Your task to perform on an android device: check the backup settings in the google photos Image 0: 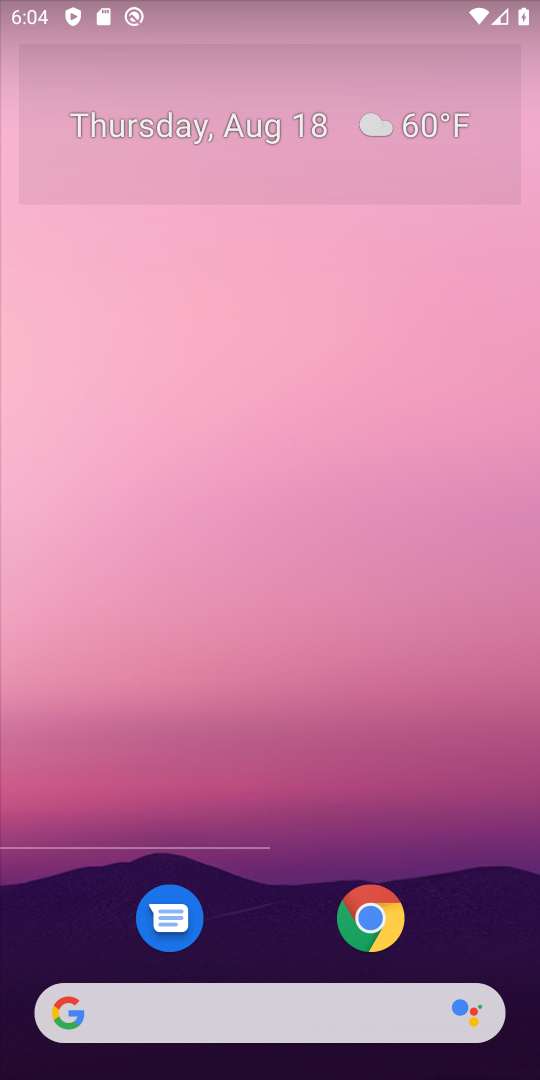
Step 0: press home button
Your task to perform on an android device: check the backup settings in the google photos Image 1: 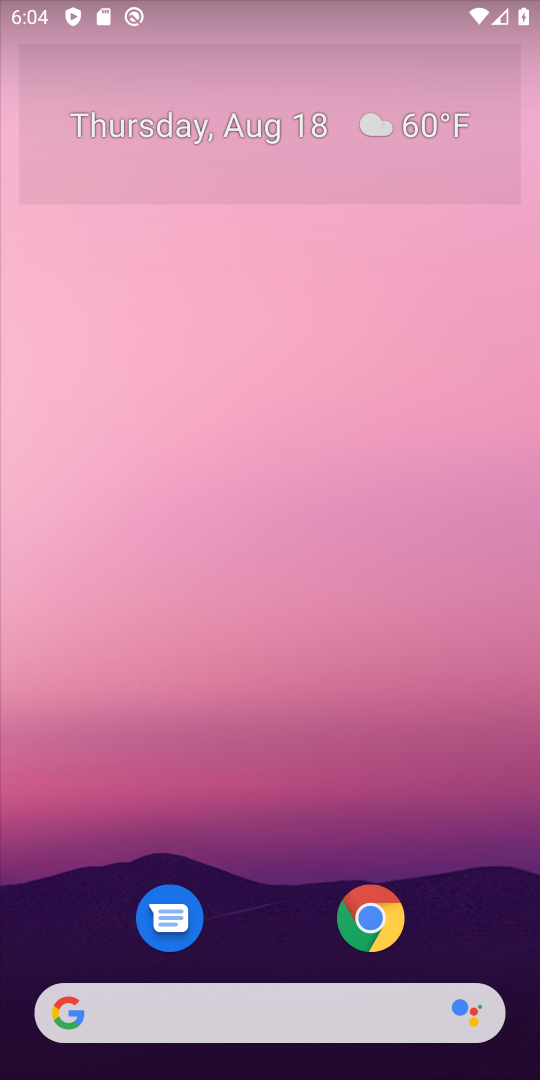
Step 1: drag from (255, 934) to (327, 205)
Your task to perform on an android device: check the backup settings in the google photos Image 2: 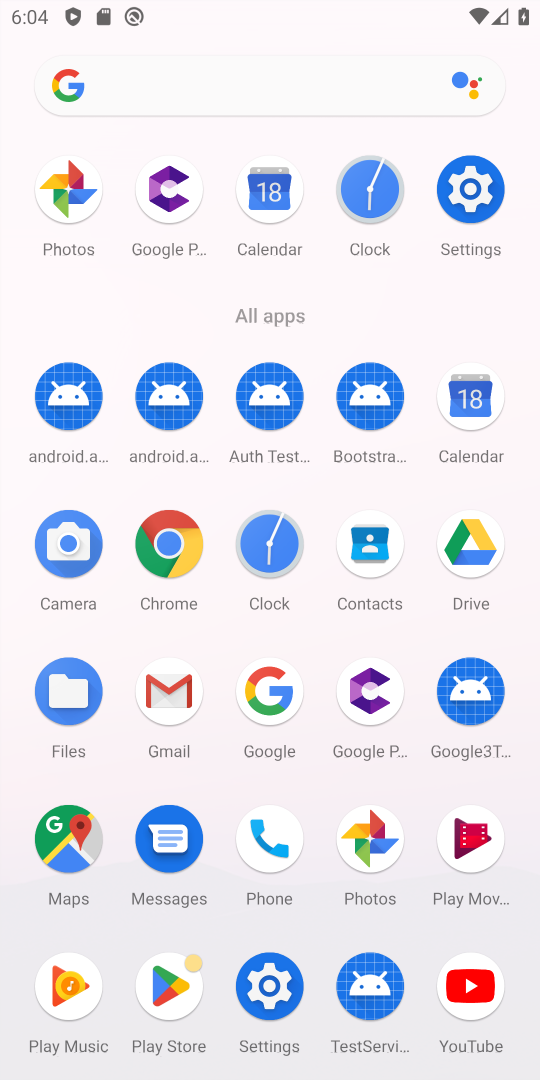
Step 2: click (61, 203)
Your task to perform on an android device: check the backup settings in the google photos Image 3: 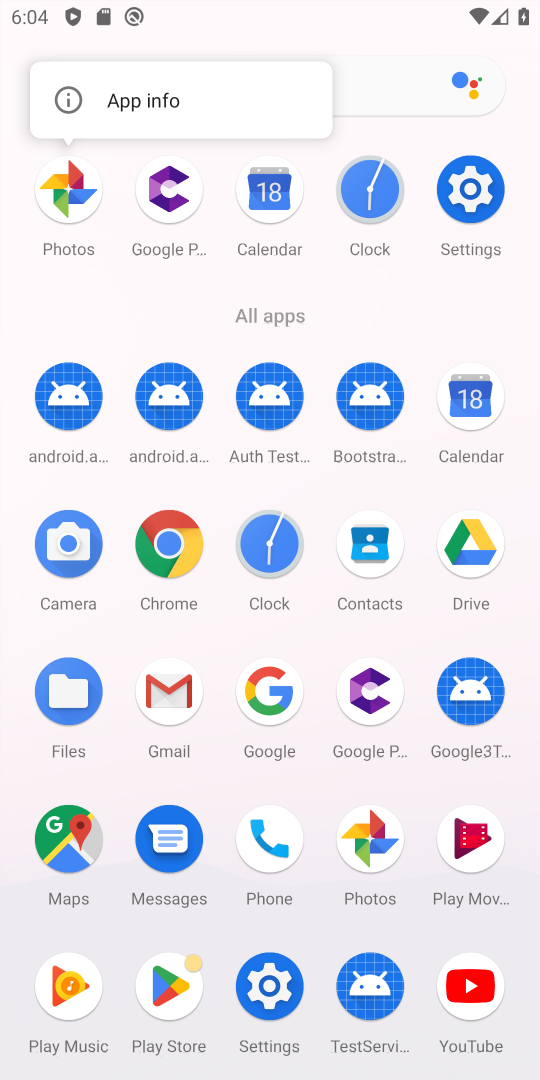
Step 3: click (61, 203)
Your task to perform on an android device: check the backup settings in the google photos Image 4: 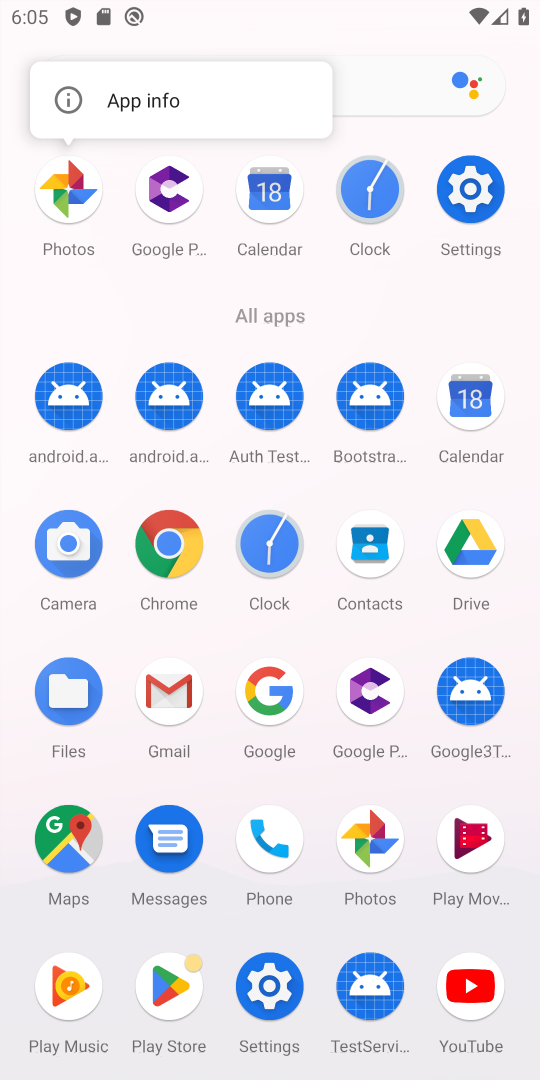
Step 4: click (73, 199)
Your task to perform on an android device: check the backup settings in the google photos Image 5: 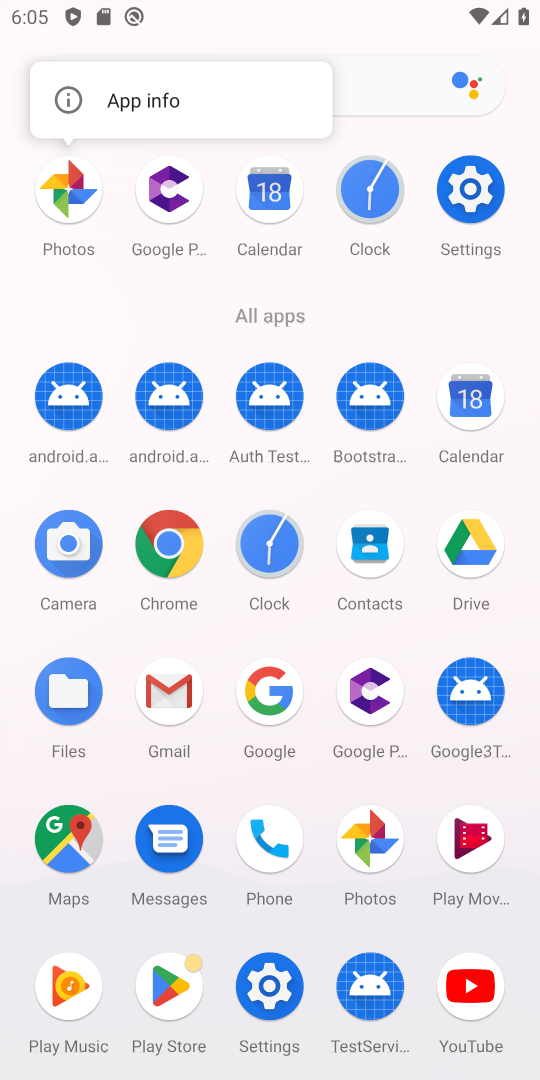
Step 5: click (73, 199)
Your task to perform on an android device: check the backup settings in the google photos Image 6: 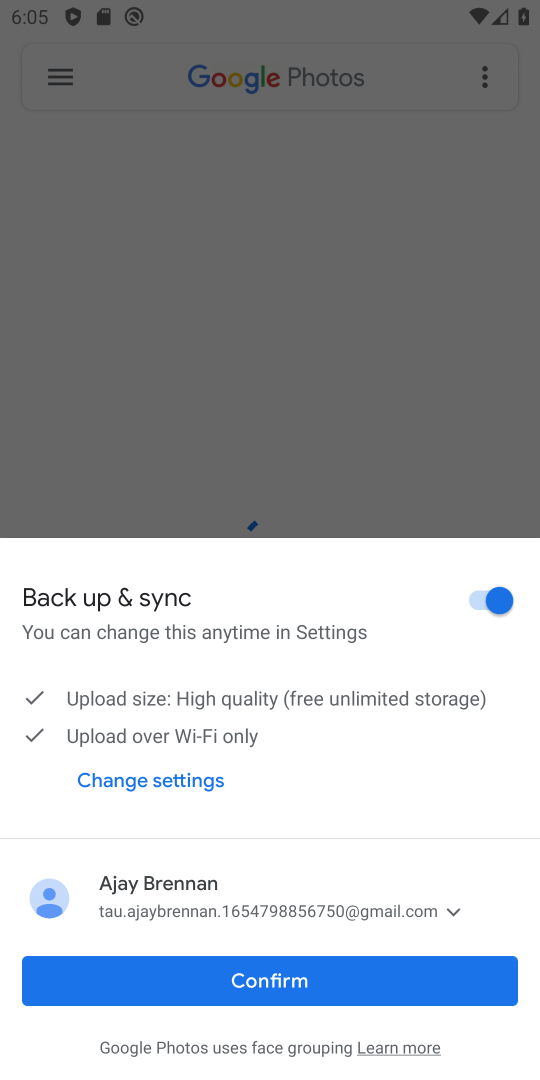
Step 6: click (249, 1008)
Your task to perform on an android device: check the backup settings in the google photos Image 7: 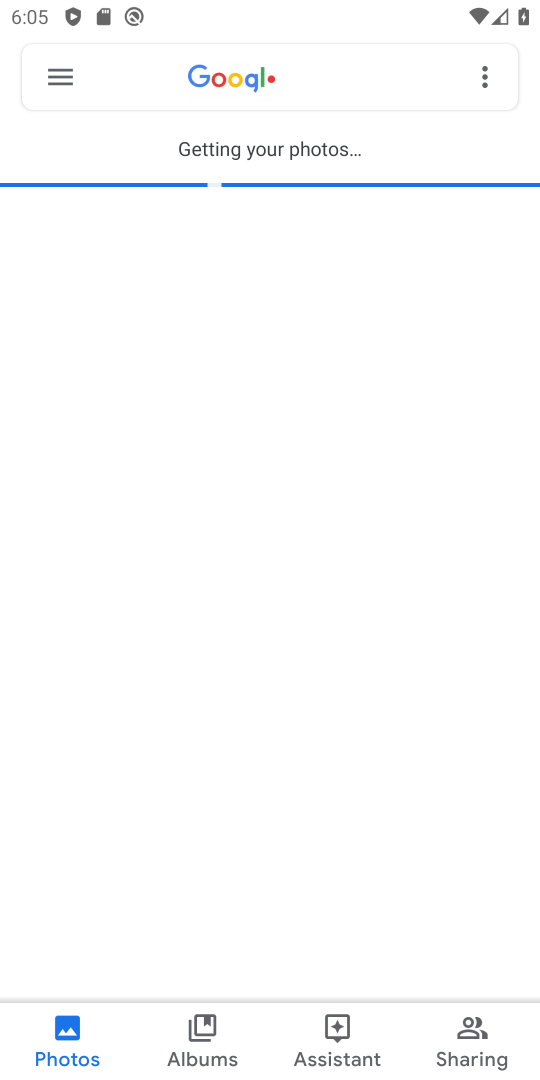
Step 7: click (62, 80)
Your task to perform on an android device: check the backup settings in the google photos Image 8: 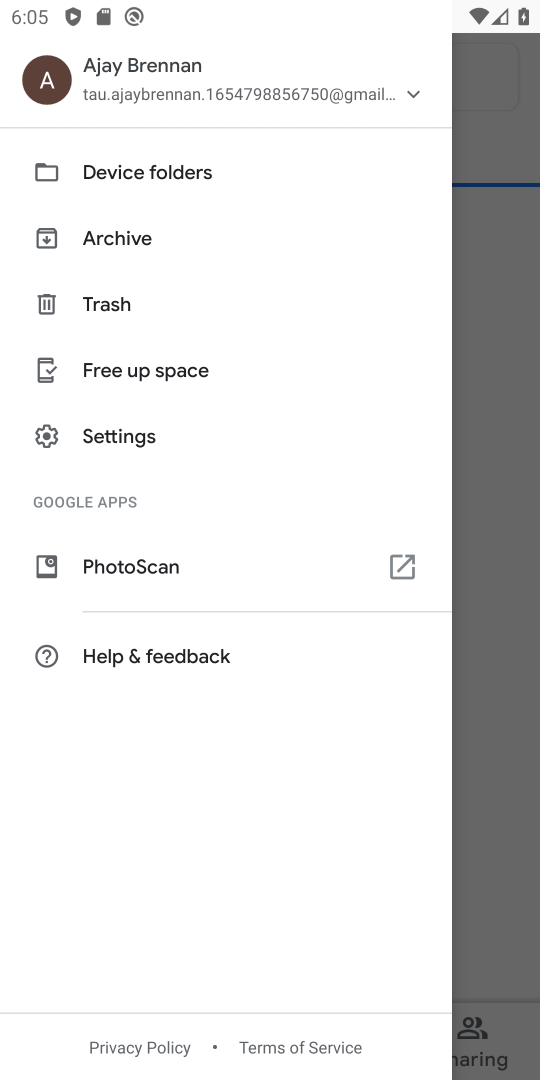
Step 8: click (118, 438)
Your task to perform on an android device: check the backup settings in the google photos Image 9: 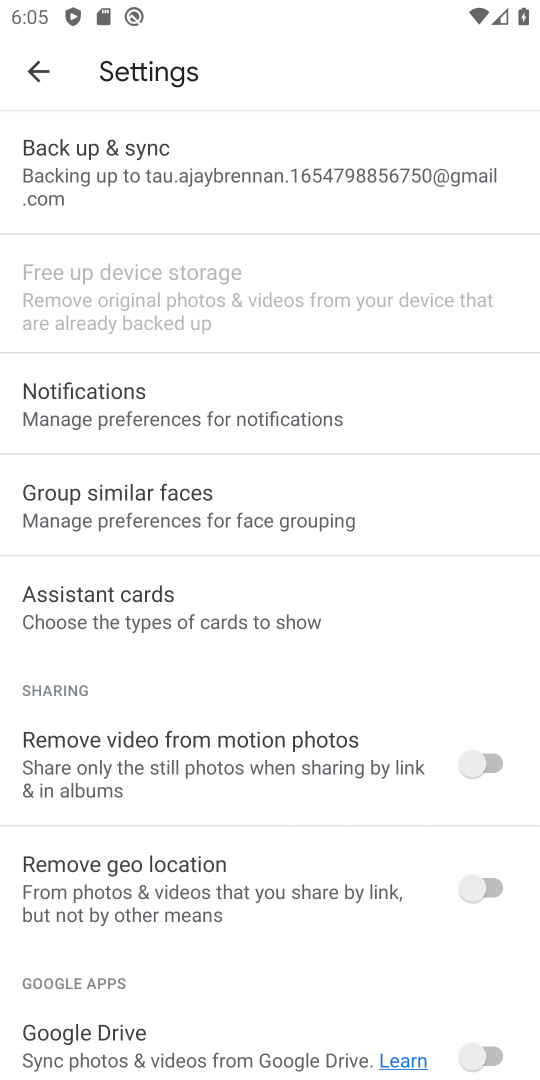
Step 9: click (57, 171)
Your task to perform on an android device: check the backup settings in the google photos Image 10: 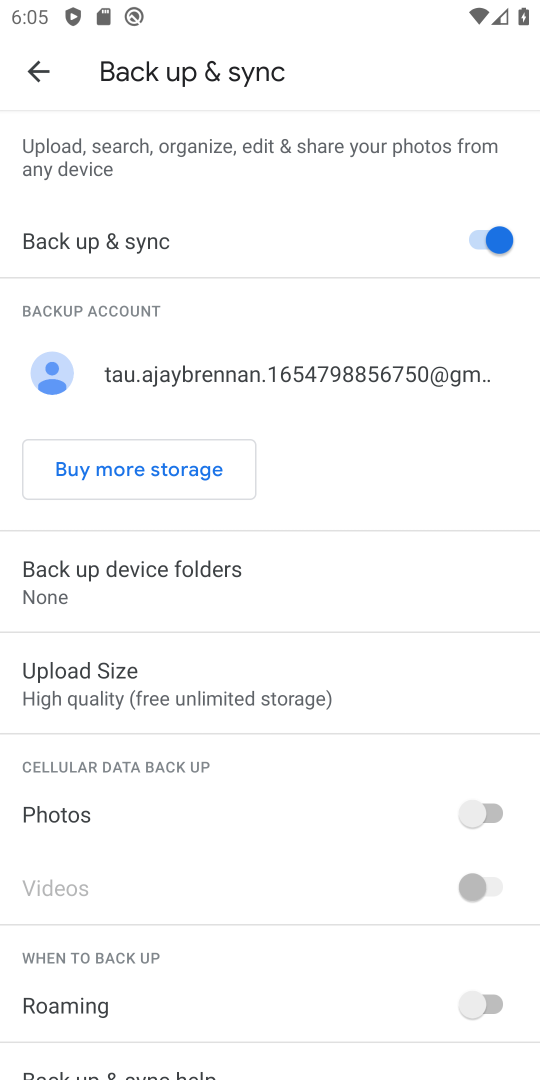
Step 10: task complete